Your task to perform on an android device: Go to sound settings Image 0: 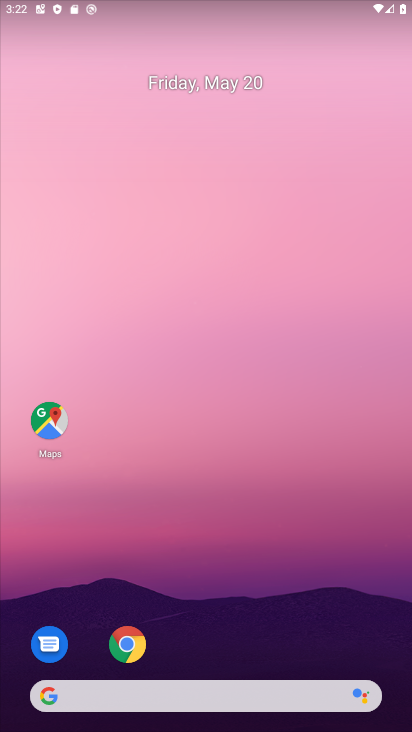
Step 0: drag from (307, 656) to (259, 204)
Your task to perform on an android device: Go to sound settings Image 1: 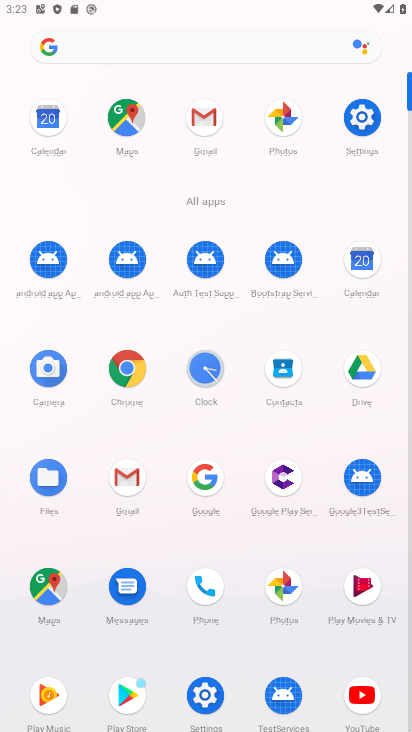
Step 1: click (373, 151)
Your task to perform on an android device: Go to sound settings Image 2: 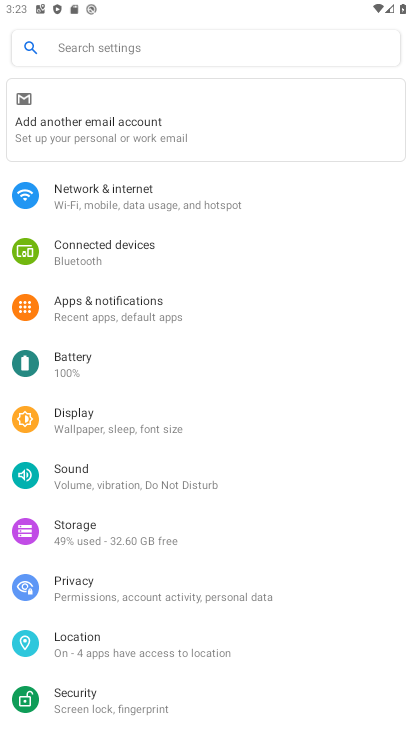
Step 2: click (134, 490)
Your task to perform on an android device: Go to sound settings Image 3: 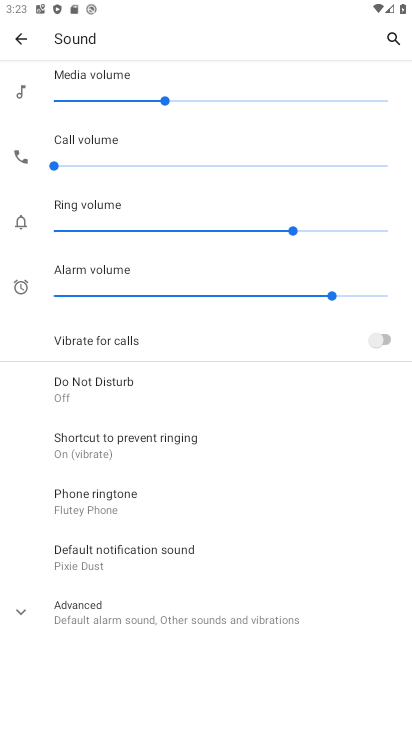
Step 3: task complete